Your task to perform on an android device: Is it going to rain this weekend? Image 0: 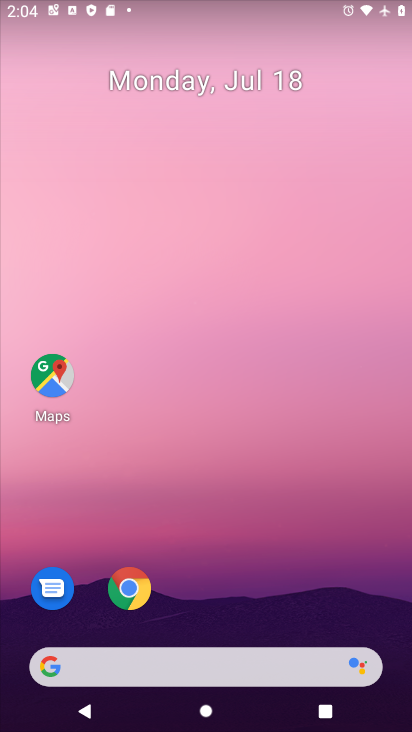
Step 0: drag from (200, 671) to (236, 8)
Your task to perform on an android device: Is it going to rain this weekend? Image 1: 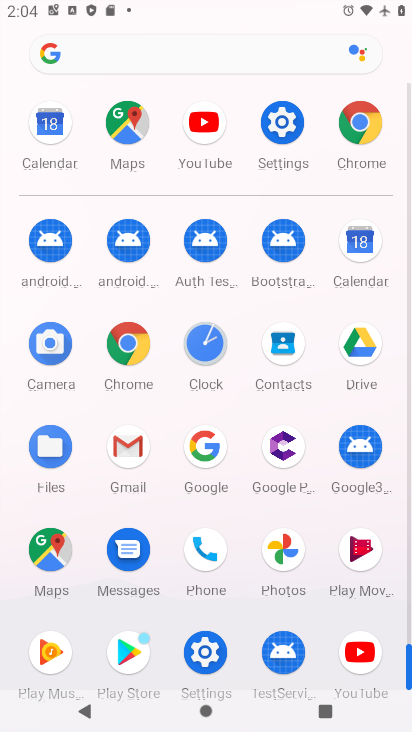
Step 1: click (204, 478)
Your task to perform on an android device: Is it going to rain this weekend? Image 2: 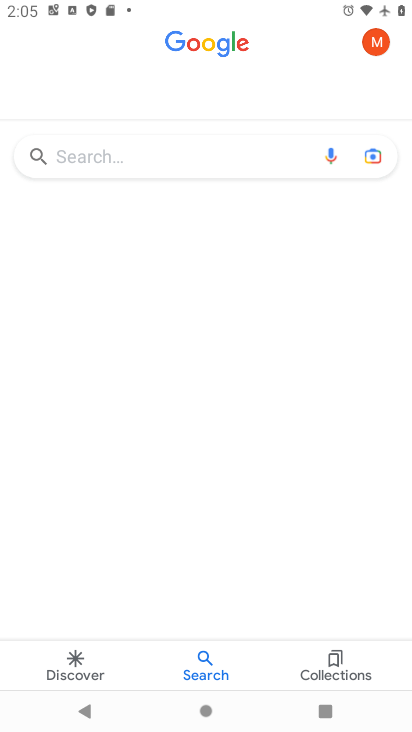
Step 2: click (175, 157)
Your task to perform on an android device: Is it going to rain this weekend? Image 3: 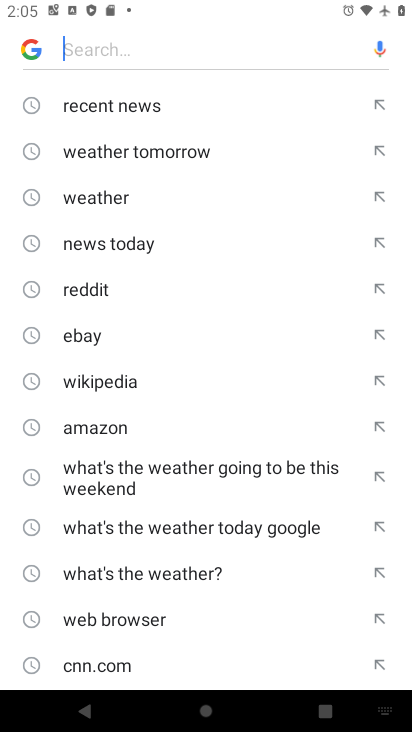
Step 3: click (144, 192)
Your task to perform on an android device: Is it going to rain this weekend? Image 4: 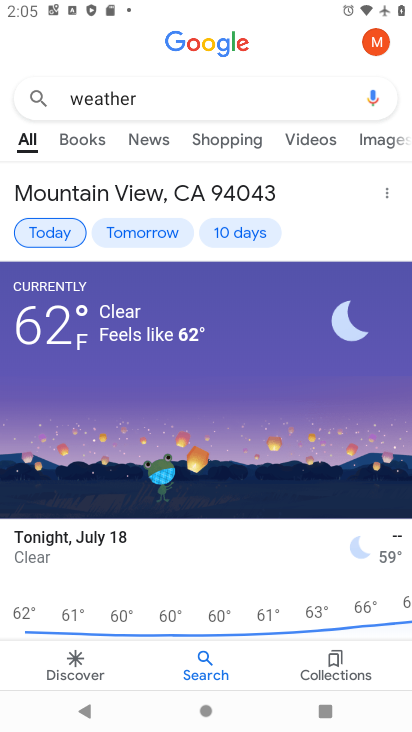
Step 4: click (234, 230)
Your task to perform on an android device: Is it going to rain this weekend? Image 5: 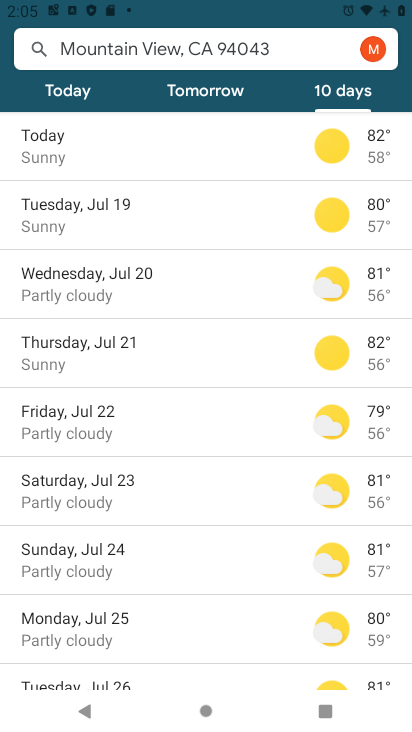
Step 5: task complete